Your task to perform on an android device: Go to wifi settings Image 0: 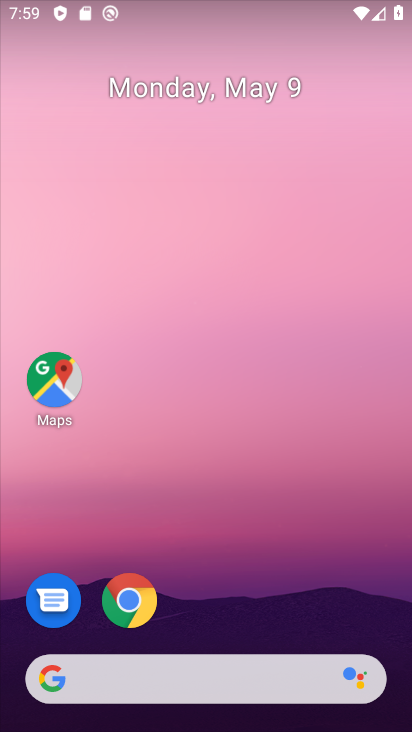
Step 0: drag from (266, 515) to (267, 43)
Your task to perform on an android device: Go to wifi settings Image 1: 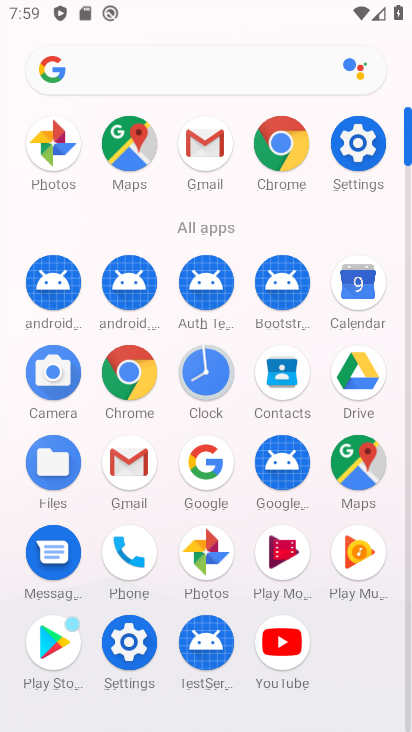
Step 1: drag from (5, 530) to (8, 318)
Your task to perform on an android device: Go to wifi settings Image 2: 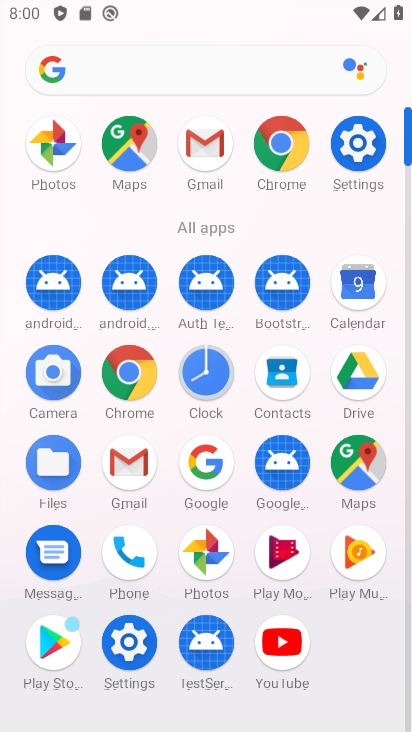
Step 2: click (126, 641)
Your task to perform on an android device: Go to wifi settings Image 3: 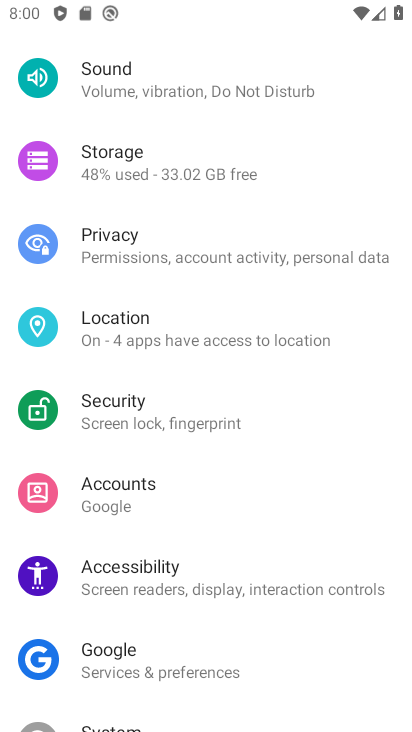
Step 3: drag from (208, 145) to (204, 547)
Your task to perform on an android device: Go to wifi settings Image 4: 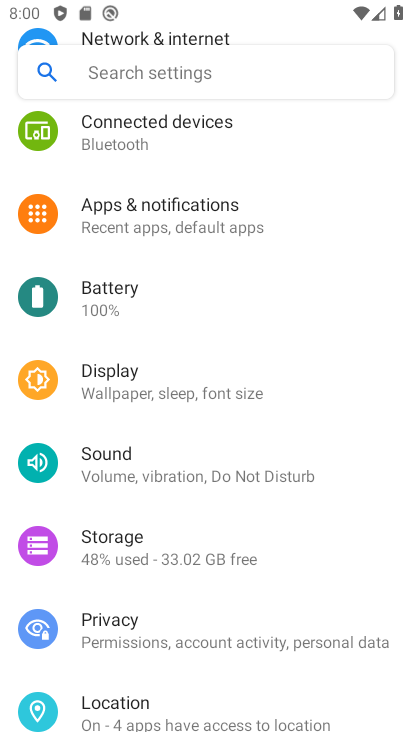
Step 4: drag from (244, 179) to (259, 583)
Your task to perform on an android device: Go to wifi settings Image 5: 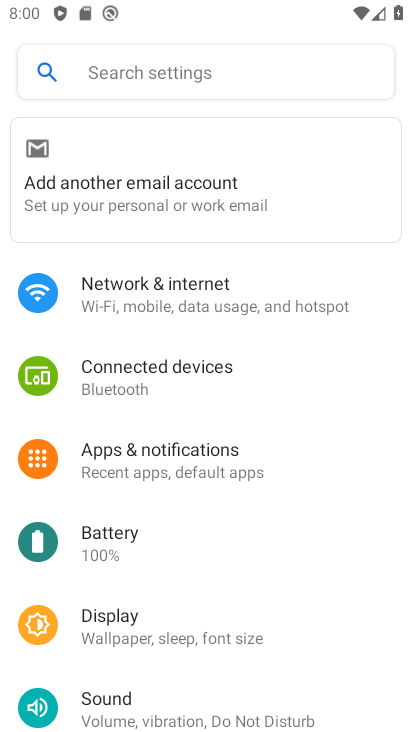
Step 5: click (237, 298)
Your task to perform on an android device: Go to wifi settings Image 6: 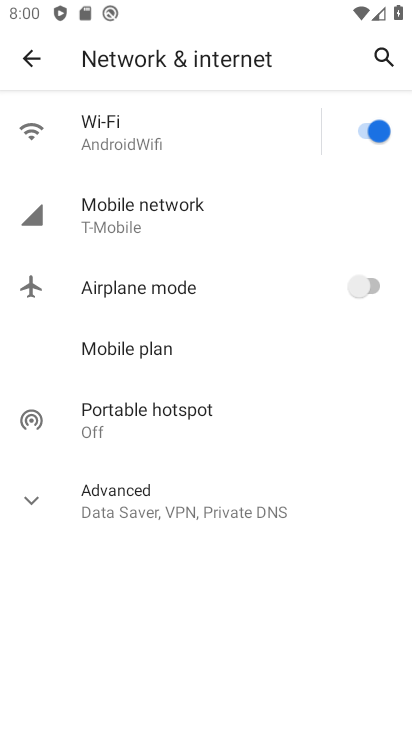
Step 6: click (181, 131)
Your task to perform on an android device: Go to wifi settings Image 7: 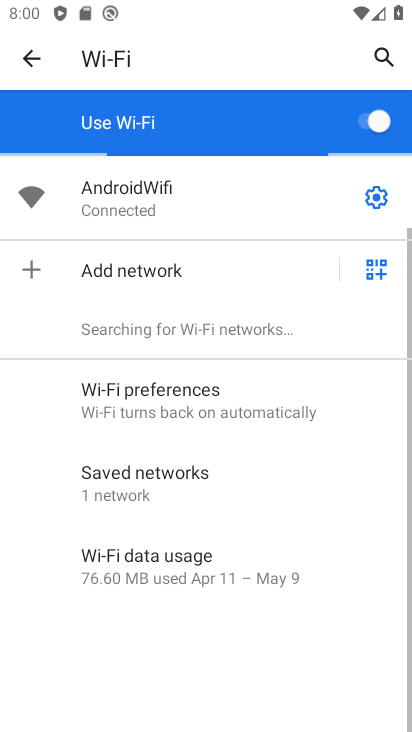
Step 7: task complete